Your task to perform on an android device: Open Amazon Image 0: 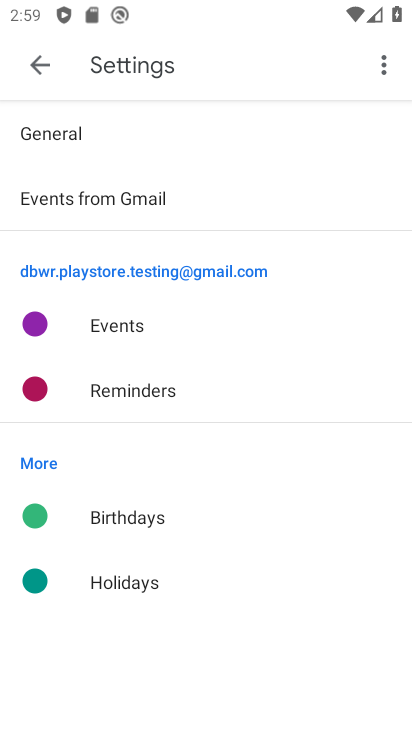
Step 0: press home button
Your task to perform on an android device: Open Amazon Image 1: 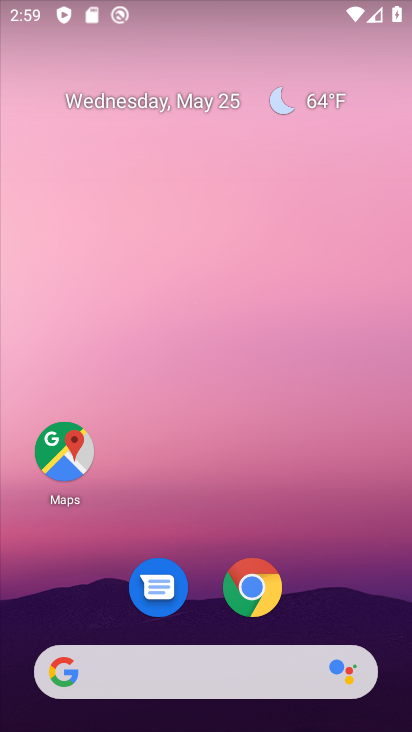
Step 1: click (264, 591)
Your task to perform on an android device: Open Amazon Image 2: 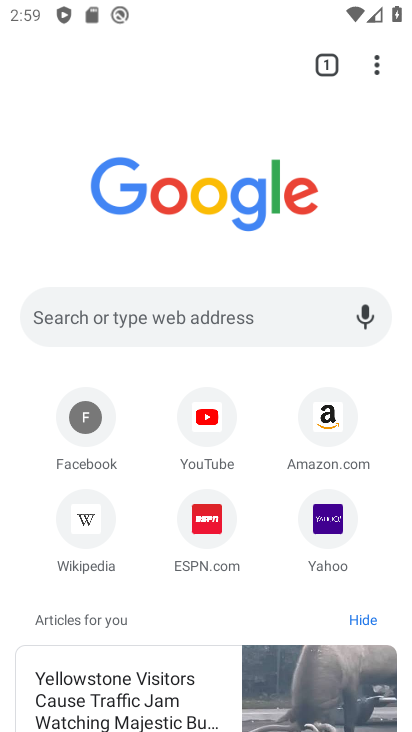
Step 2: click (338, 413)
Your task to perform on an android device: Open Amazon Image 3: 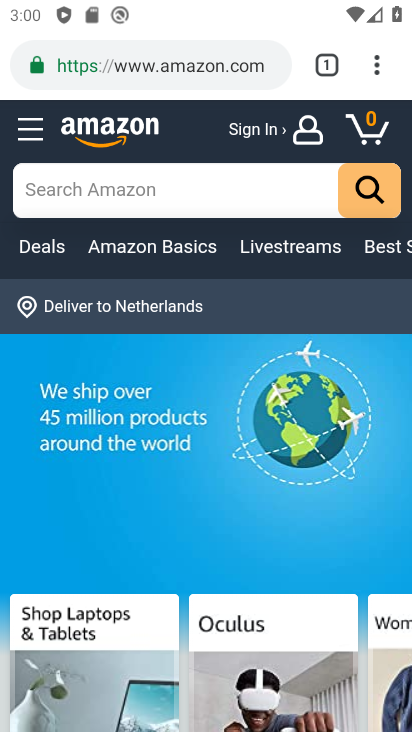
Step 3: task complete